Your task to perform on an android device: empty trash in google photos Image 0: 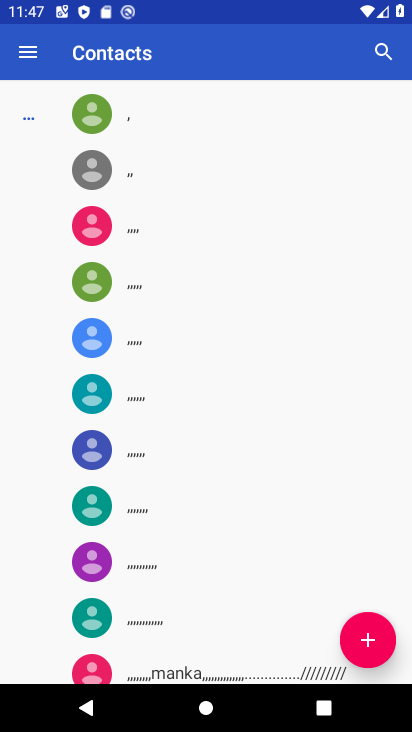
Step 0: press home button
Your task to perform on an android device: empty trash in google photos Image 1: 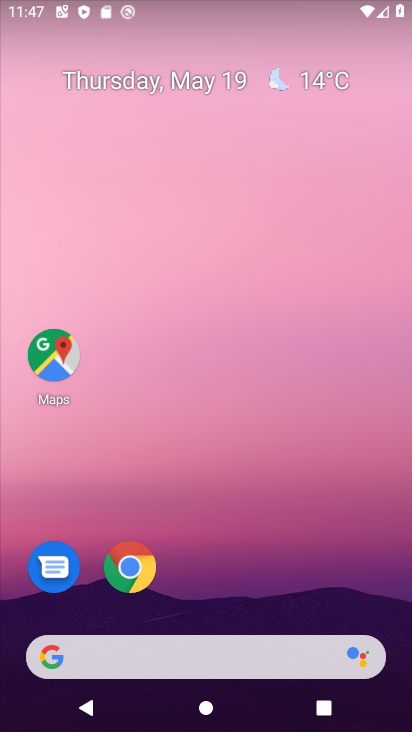
Step 1: drag from (271, 439) to (319, 23)
Your task to perform on an android device: empty trash in google photos Image 2: 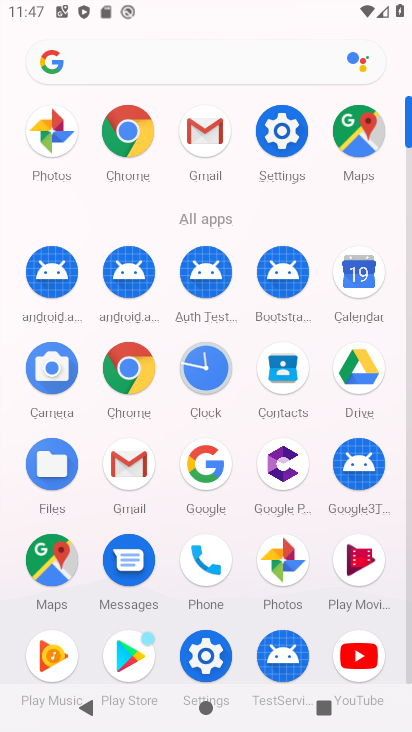
Step 2: click (271, 563)
Your task to perform on an android device: empty trash in google photos Image 3: 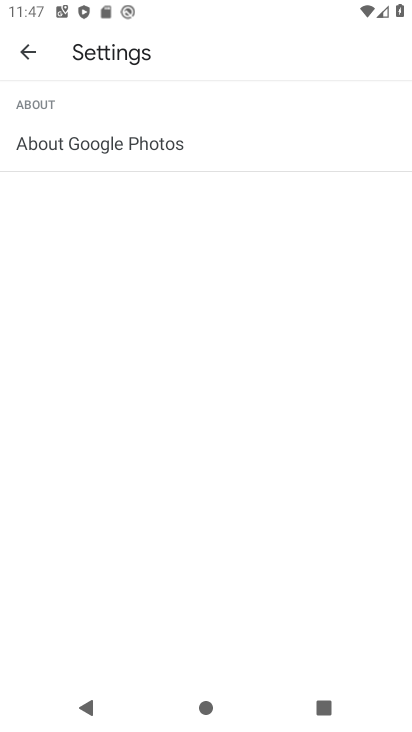
Step 3: click (26, 46)
Your task to perform on an android device: empty trash in google photos Image 4: 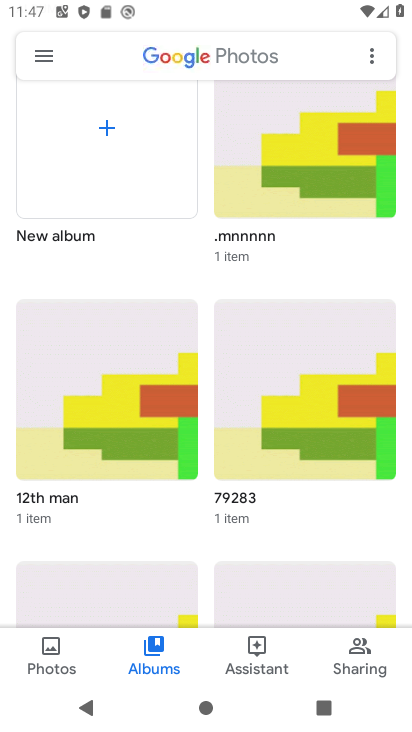
Step 4: click (40, 61)
Your task to perform on an android device: empty trash in google photos Image 5: 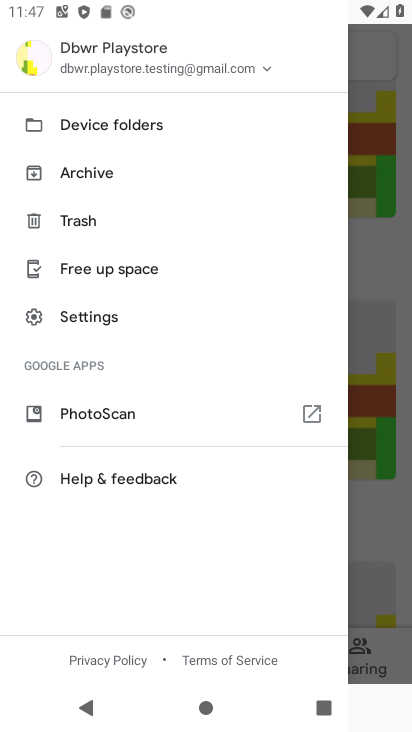
Step 5: click (80, 214)
Your task to perform on an android device: empty trash in google photos Image 6: 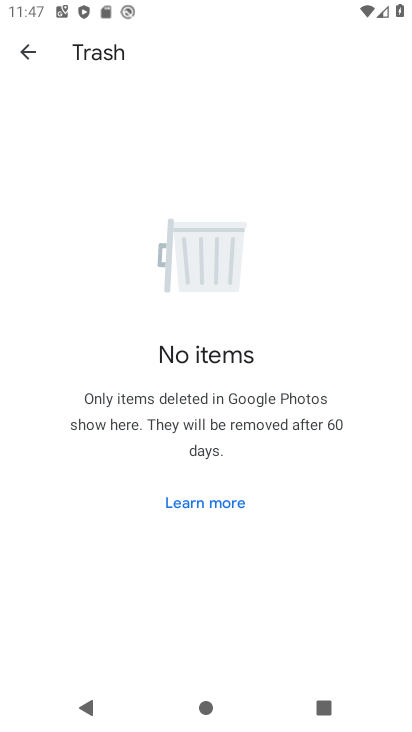
Step 6: task complete